Your task to perform on an android device: Open the calendar and show me this week's events Image 0: 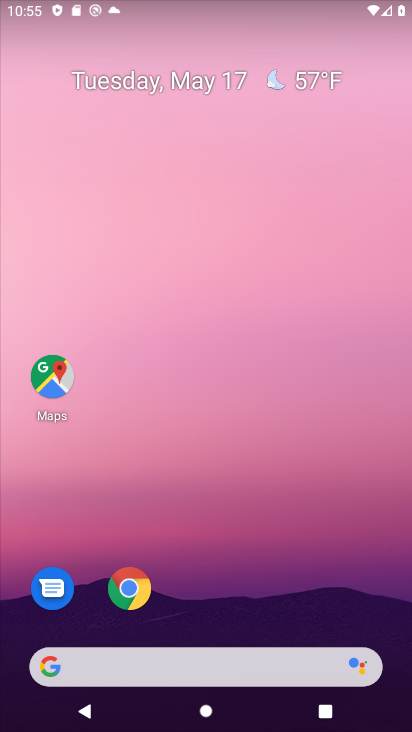
Step 0: drag from (244, 613) to (238, 127)
Your task to perform on an android device: Open the calendar and show me this week's events Image 1: 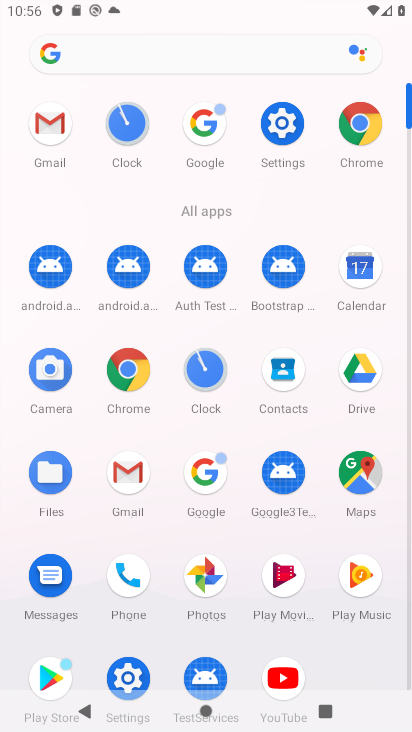
Step 1: click (344, 283)
Your task to perform on an android device: Open the calendar and show me this week's events Image 2: 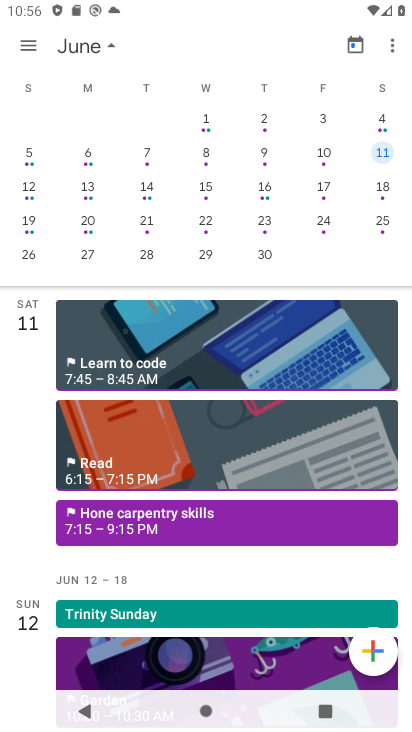
Step 2: drag from (36, 191) to (410, 202)
Your task to perform on an android device: Open the calendar and show me this week's events Image 3: 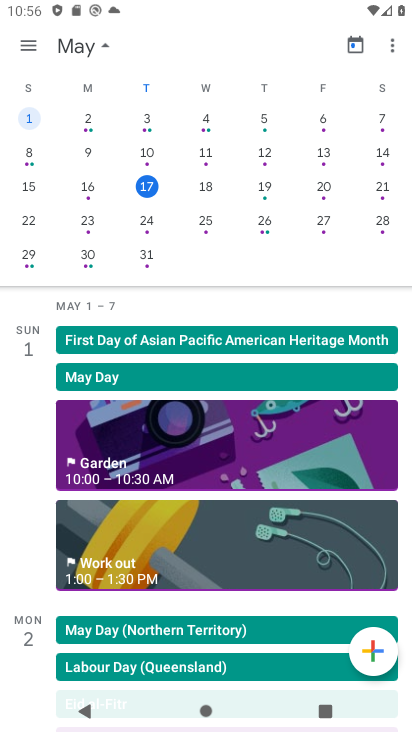
Step 3: click (202, 193)
Your task to perform on an android device: Open the calendar and show me this week's events Image 4: 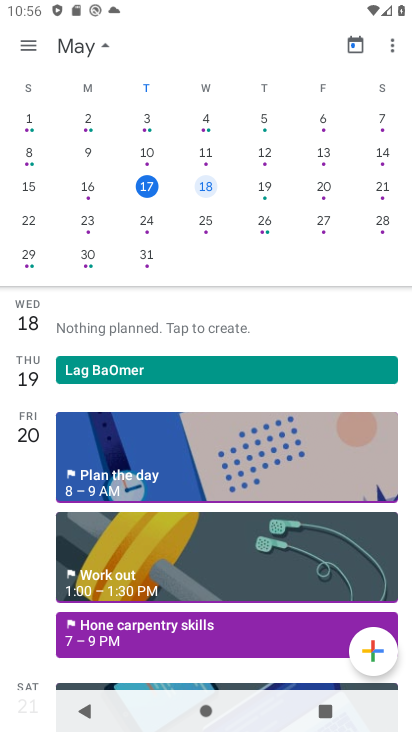
Step 4: click (265, 193)
Your task to perform on an android device: Open the calendar and show me this week's events Image 5: 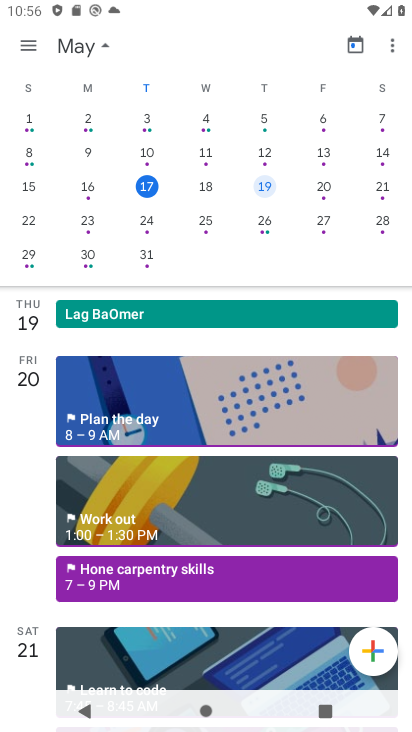
Step 5: click (334, 196)
Your task to perform on an android device: Open the calendar and show me this week's events Image 6: 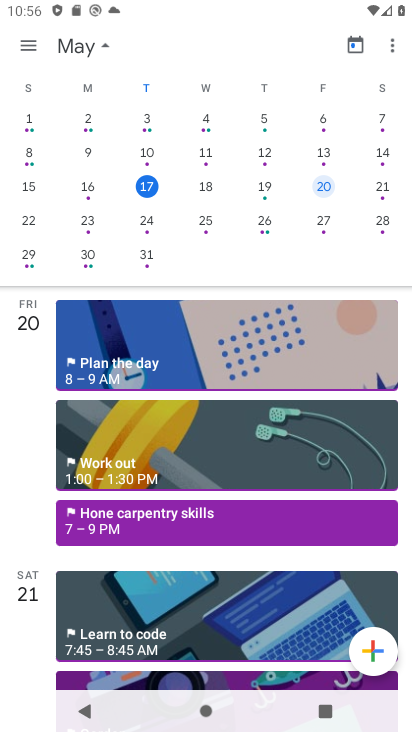
Step 6: click (387, 202)
Your task to perform on an android device: Open the calendar and show me this week's events Image 7: 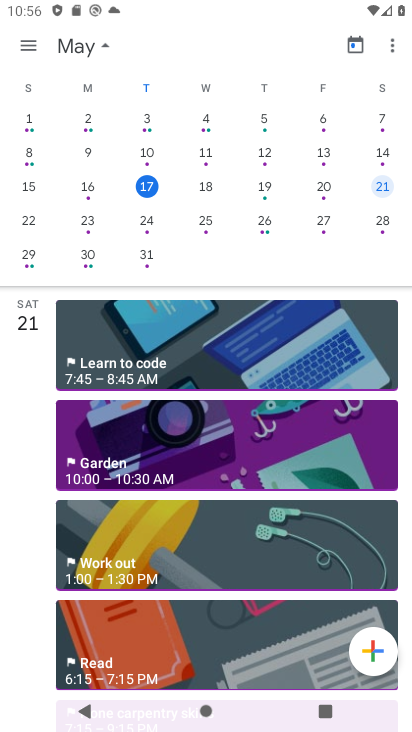
Step 7: task complete